Your task to perform on an android device: Go to accessibility settings Image 0: 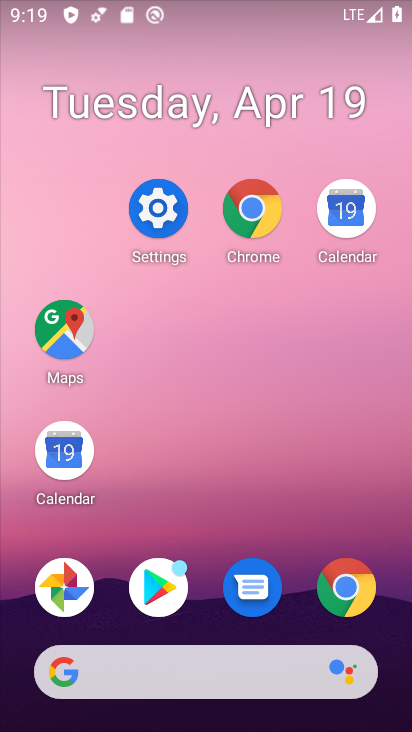
Step 0: drag from (278, 686) to (186, 210)
Your task to perform on an android device: Go to accessibility settings Image 1: 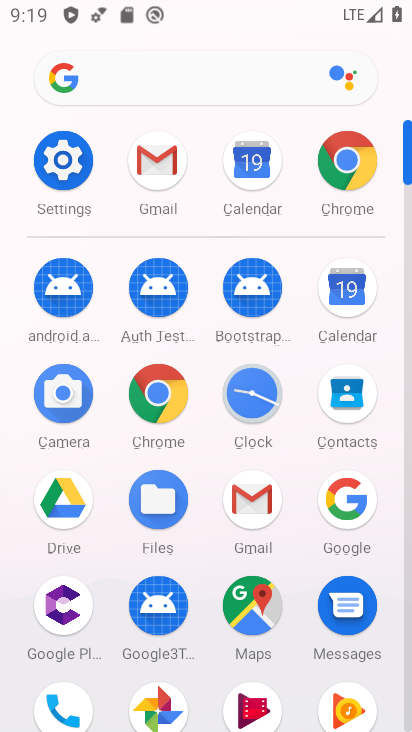
Step 1: click (56, 165)
Your task to perform on an android device: Go to accessibility settings Image 2: 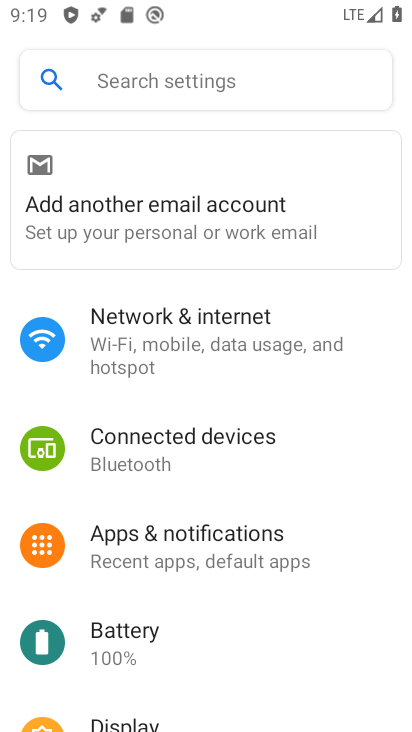
Step 2: drag from (186, 531) to (186, 149)
Your task to perform on an android device: Go to accessibility settings Image 3: 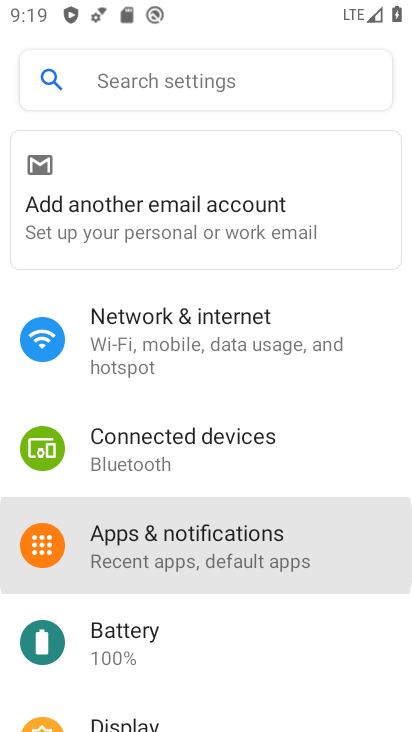
Step 3: drag from (147, 567) to (120, 201)
Your task to perform on an android device: Go to accessibility settings Image 4: 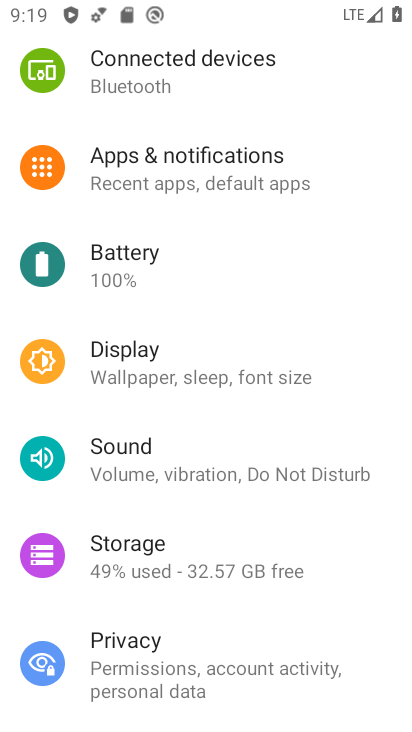
Step 4: drag from (196, 397) to (198, 33)
Your task to perform on an android device: Go to accessibility settings Image 5: 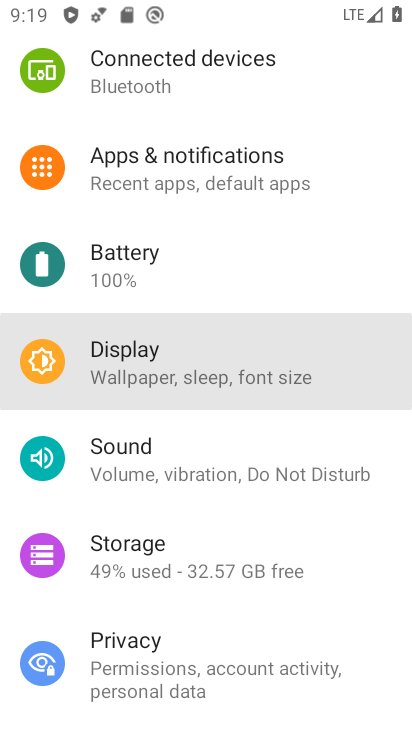
Step 5: drag from (236, 470) to (197, 66)
Your task to perform on an android device: Go to accessibility settings Image 6: 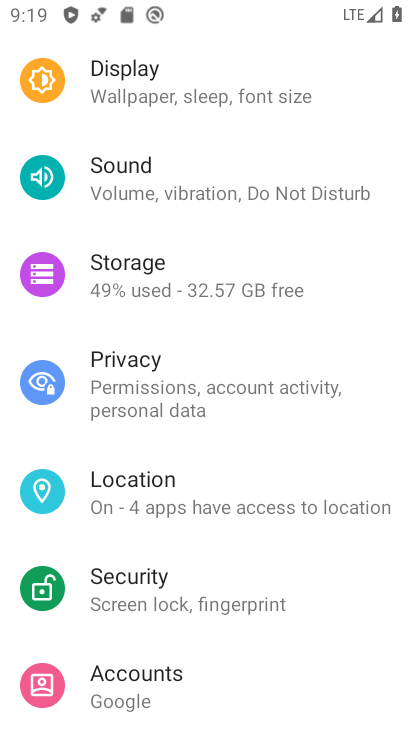
Step 6: drag from (176, 432) to (147, 44)
Your task to perform on an android device: Go to accessibility settings Image 7: 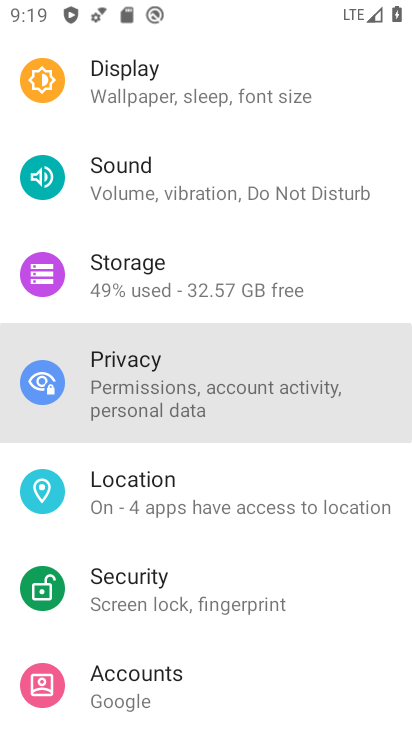
Step 7: drag from (176, 482) to (207, 129)
Your task to perform on an android device: Go to accessibility settings Image 8: 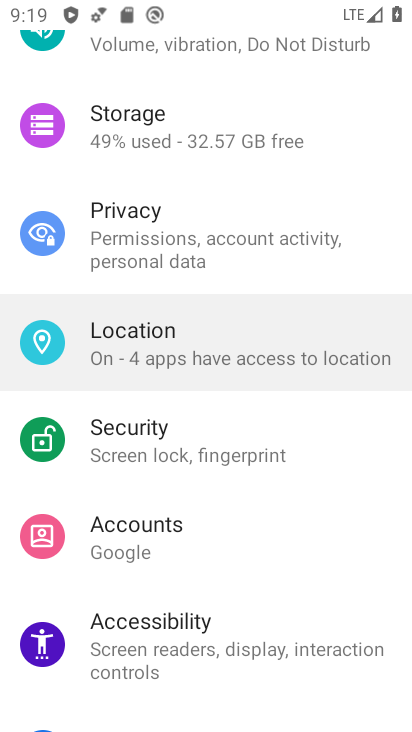
Step 8: drag from (225, 492) to (217, 69)
Your task to perform on an android device: Go to accessibility settings Image 9: 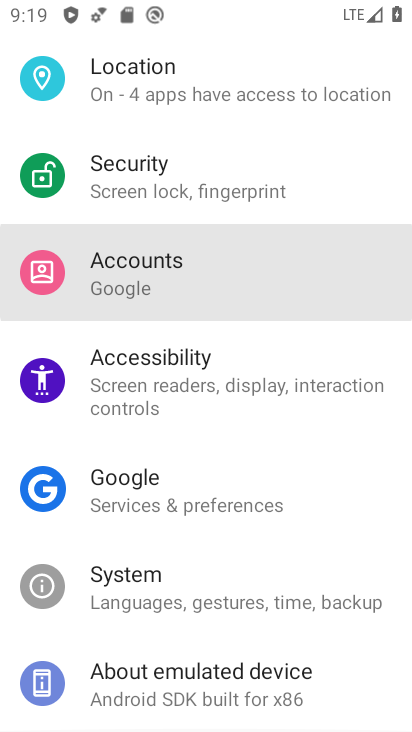
Step 9: drag from (154, 478) to (188, 27)
Your task to perform on an android device: Go to accessibility settings Image 10: 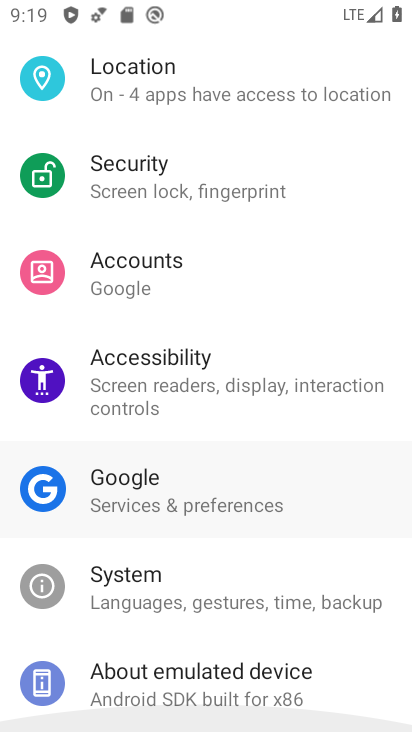
Step 10: drag from (137, 523) to (166, 112)
Your task to perform on an android device: Go to accessibility settings Image 11: 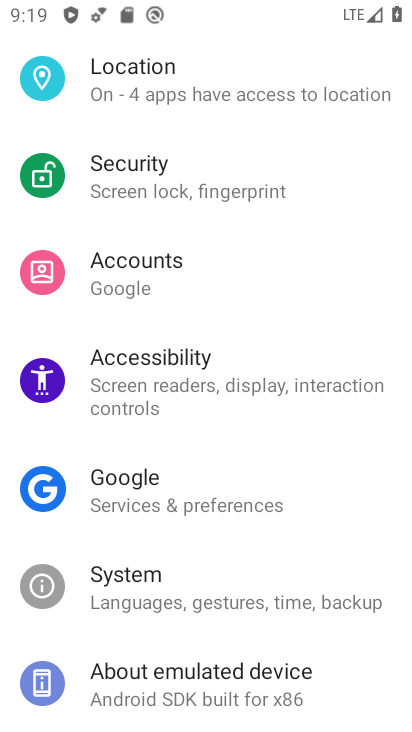
Step 11: click (138, 383)
Your task to perform on an android device: Go to accessibility settings Image 12: 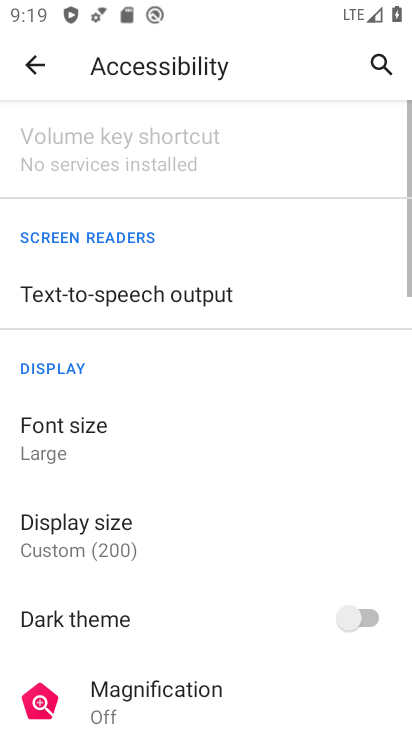
Step 12: task complete